Your task to perform on an android device: turn off smart reply in the gmail app Image 0: 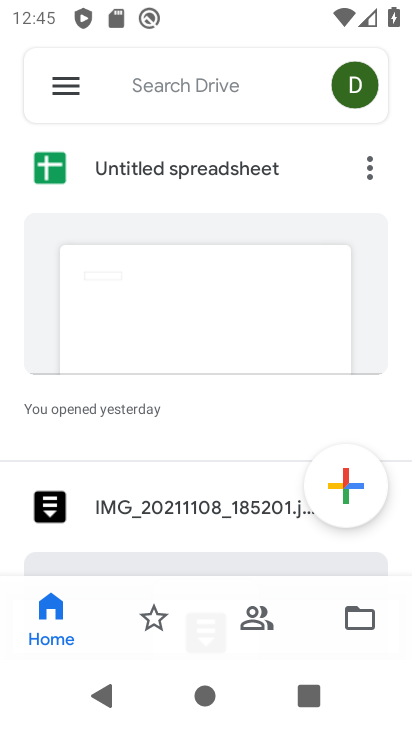
Step 0: press home button
Your task to perform on an android device: turn off smart reply in the gmail app Image 1: 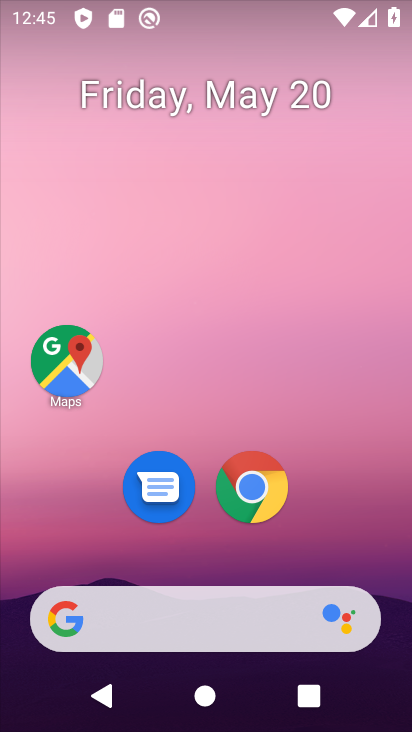
Step 1: drag from (297, 392) to (276, 59)
Your task to perform on an android device: turn off smart reply in the gmail app Image 2: 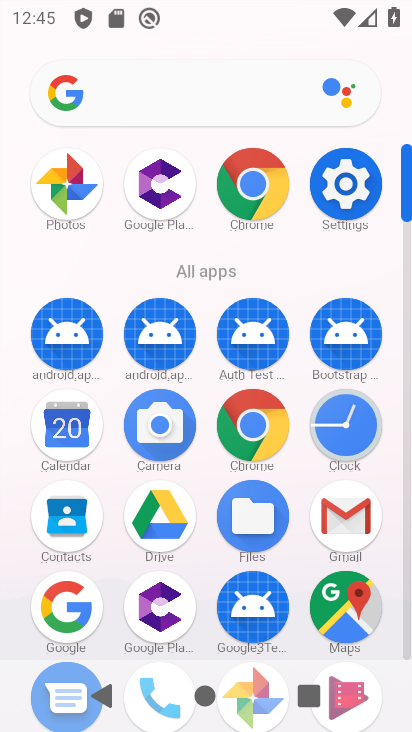
Step 2: click (343, 522)
Your task to perform on an android device: turn off smart reply in the gmail app Image 3: 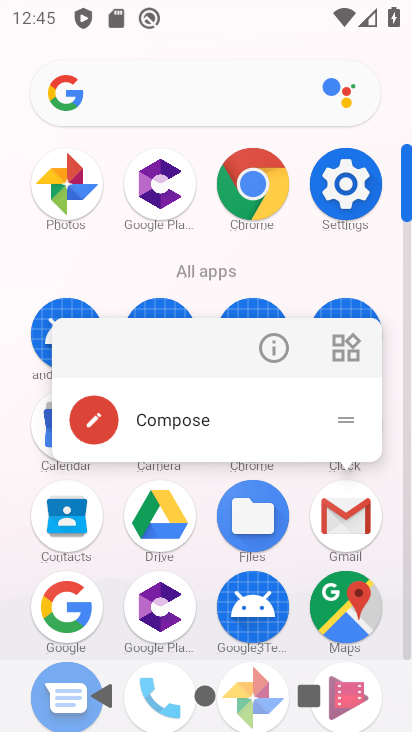
Step 3: click (338, 512)
Your task to perform on an android device: turn off smart reply in the gmail app Image 4: 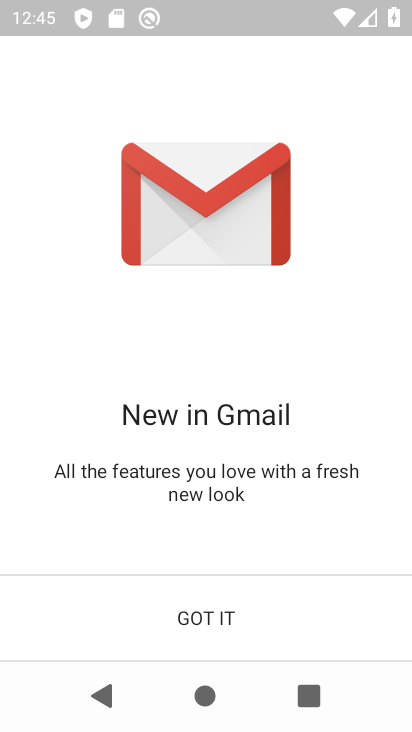
Step 4: click (191, 621)
Your task to perform on an android device: turn off smart reply in the gmail app Image 5: 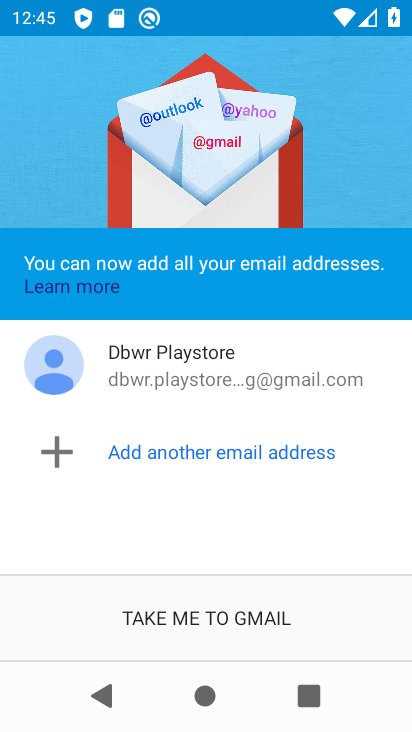
Step 5: click (194, 607)
Your task to perform on an android device: turn off smart reply in the gmail app Image 6: 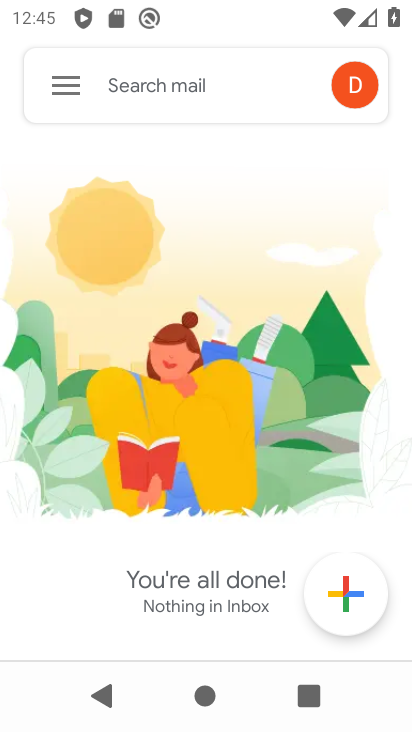
Step 6: click (56, 84)
Your task to perform on an android device: turn off smart reply in the gmail app Image 7: 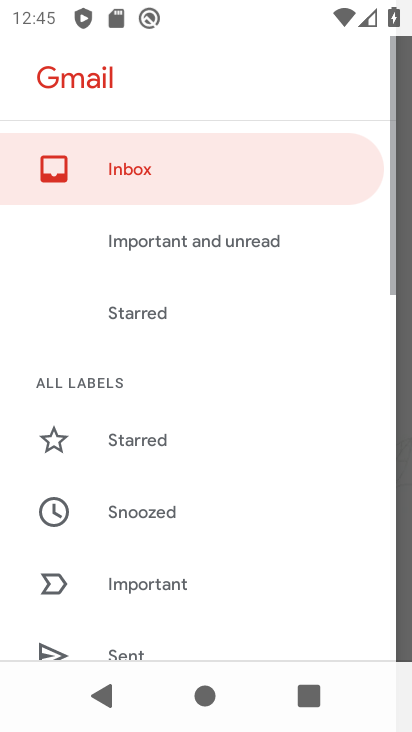
Step 7: drag from (215, 577) to (241, 161)
Your task to perform on an android device: turn off smart reply in the gmail app Image 8: 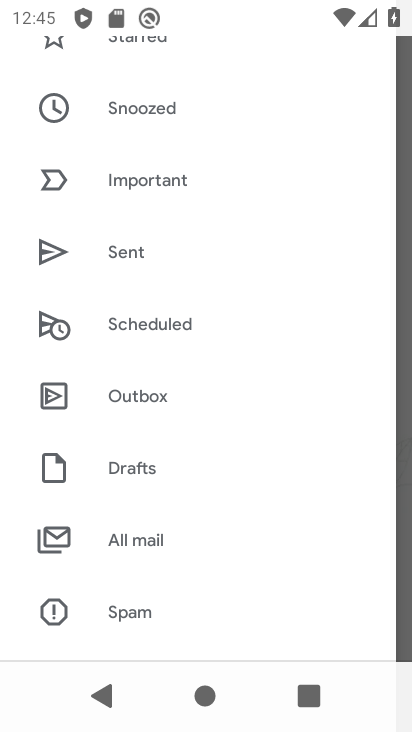
Step 8: drag from (264, 558) to (329, 207)
Your task to perform on an android device: turn off smart reply in the gmail app Image 9: 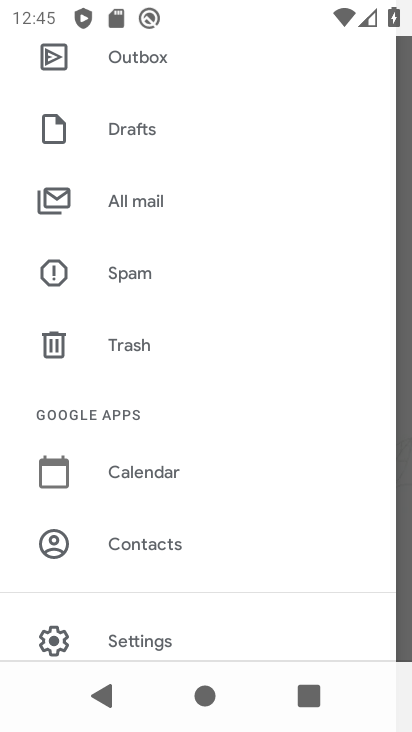
Step 9: drag from (213, 599) to (263, 372)
Your task to perform on an android device: turn off smart reply in the gmail app Image 10: 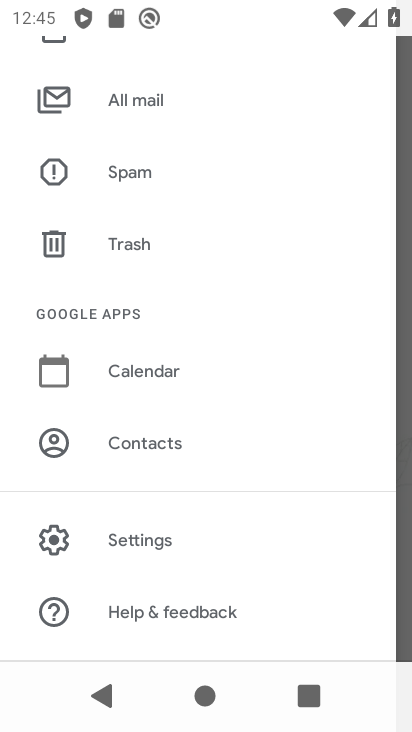
Step 10: click (148, 531)
Your task to perform on an android device: turn off smart reply in the gmail app Image 11: 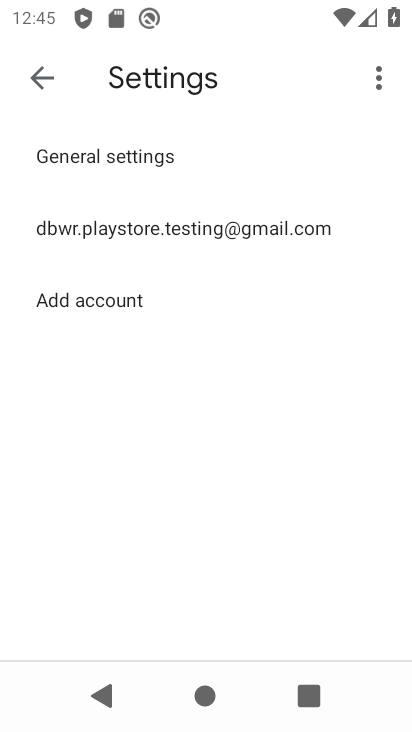
Step 11: click (247, 234)
Your task to perform on an android device: turn off smart reply in the gmail app Image 12: 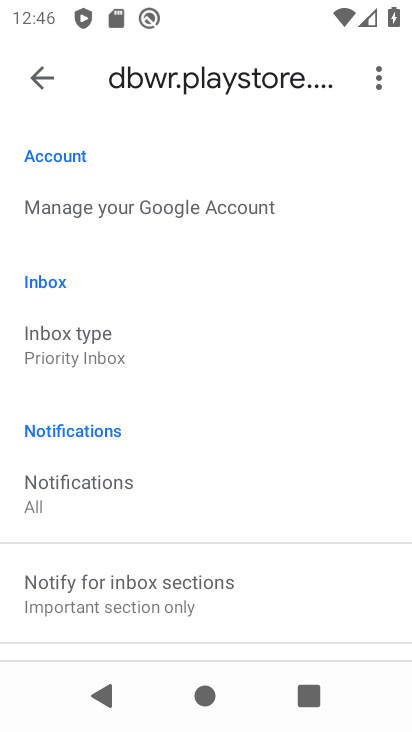
Step 12: click (82, 343)
Your task to perform on an android device: turn off smart reply in the gmail app Image 13: 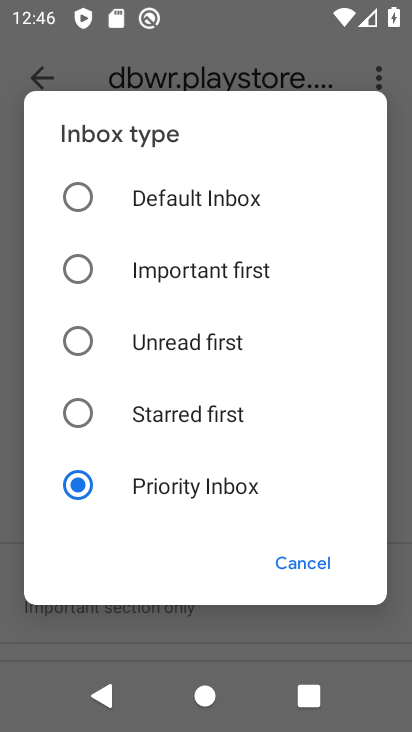
Step 13: click (309, 558)
Your task to perform on an android device: turn off smart reply in the gmail app Image 14: 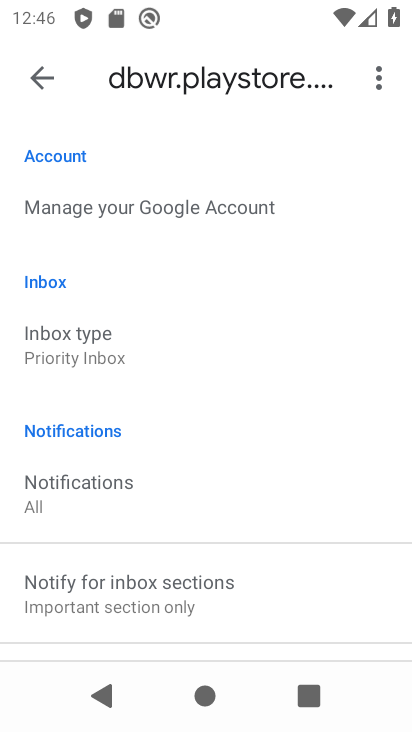
Step 14: drag from (309, 555) to (350, 5)
Your task to perform on an android device: turn off smart reply in the gmail app Image 15: 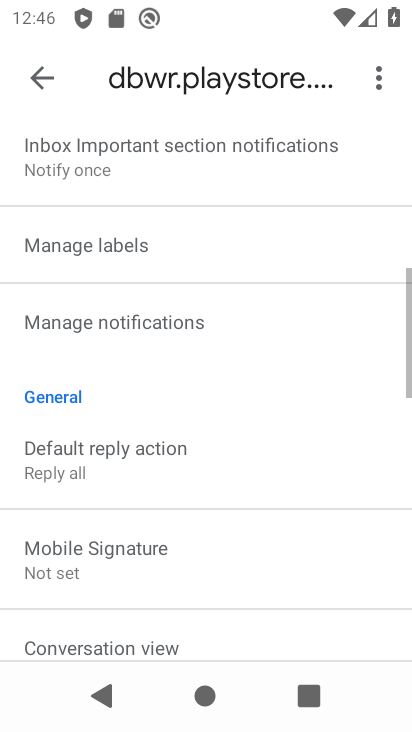
Step 15: drag from (303, 539) to (326, 109)
Your task to perform on an android device: turn off smart reply in the gmail app Image 16: 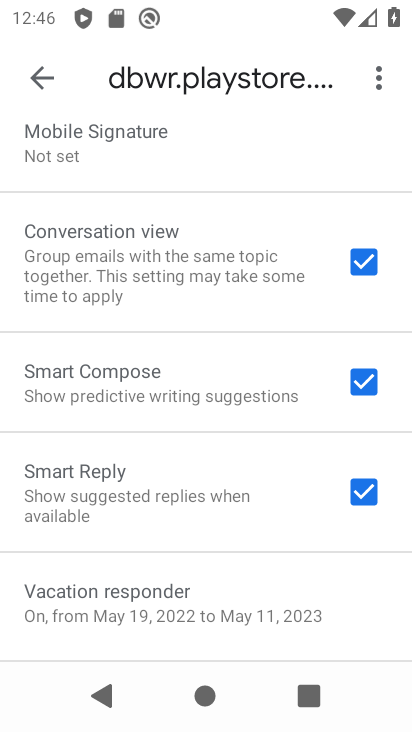
Step 16: click (365, 491)
Your task to perform on an android device: turn off smart reply in the gmail app Image 17: 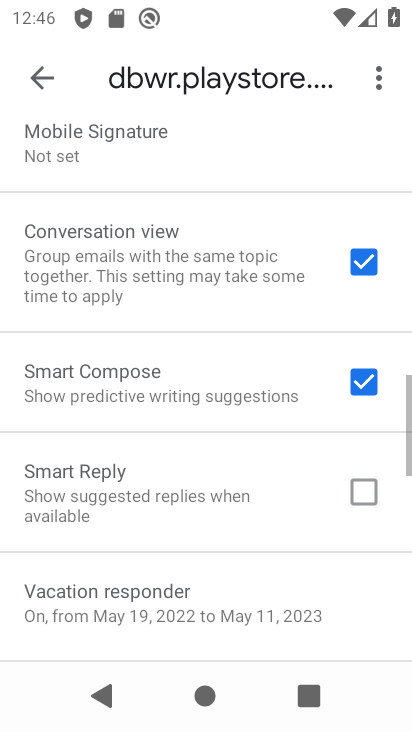
Step 17: task complete